Your task to perform on an android device: Open battery settings Image 0: 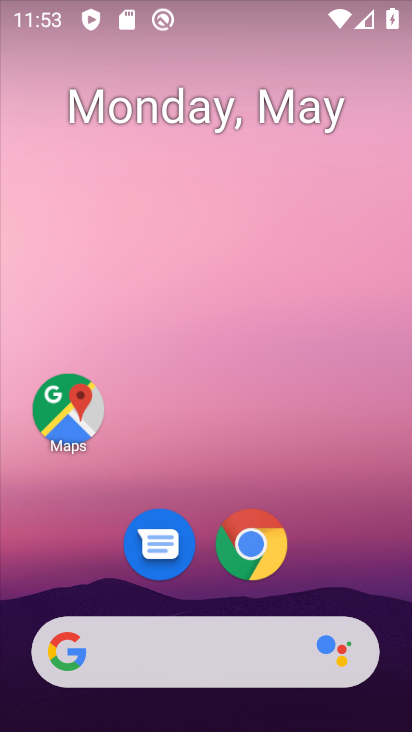
Step 0: drag from (208, 470) to (208, 173)
Your task to perform on an android device: Open battery settings Image 1: 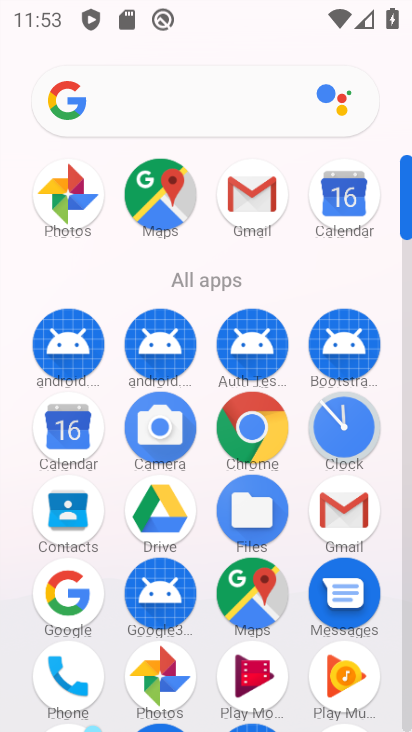
Step 1: drag from (199, 583) to (215, 247)
Your task to perform on an android device: Open battery settings Image 2: 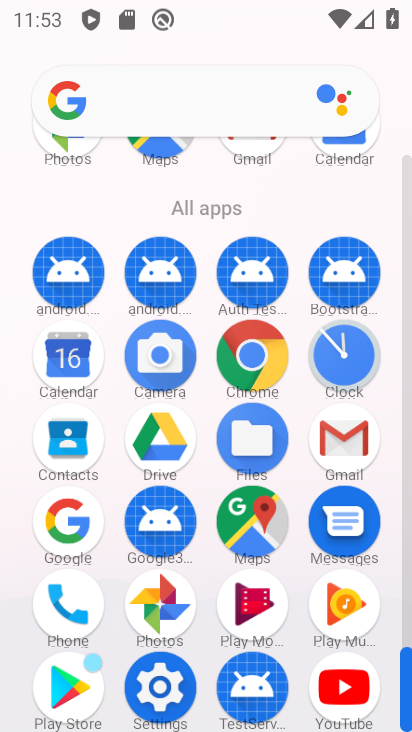
Step 2: click (153, 669)
Your task to perform on an android device: Open battery settings Image 3: 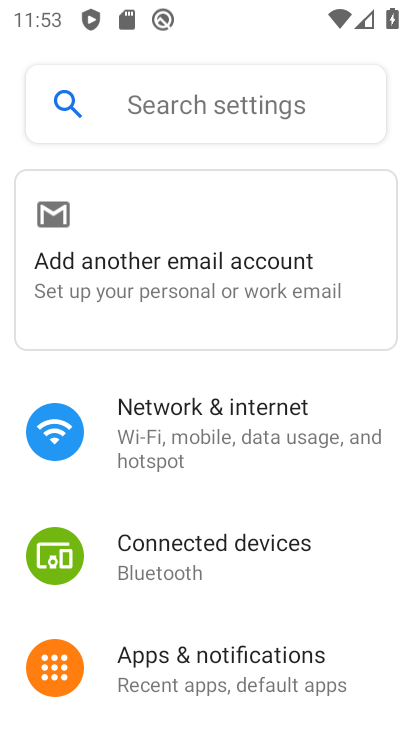
Step 3: drag from (236, 602) to (253, 383)
Your task to perform on an android device: Open battery settings Image 4: 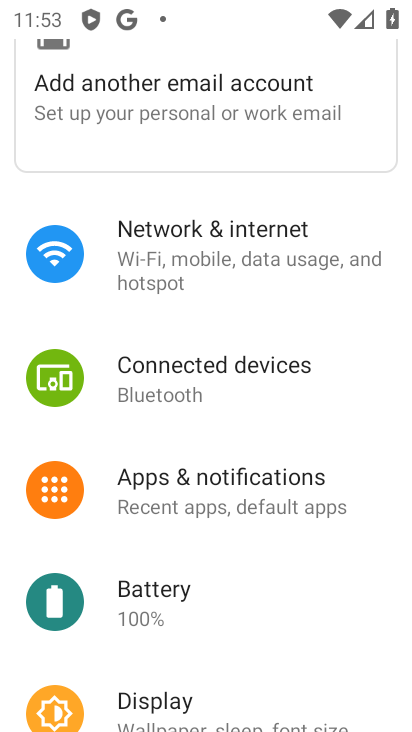
Step 4: click (204, 586)
Your task to perform on an android device: Open battery settings Image 5: 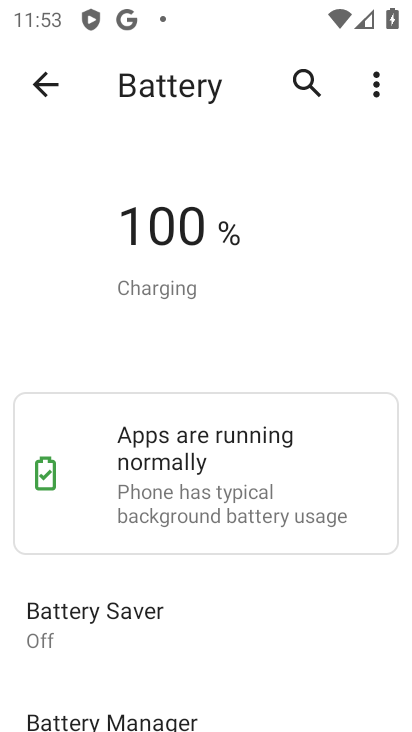
Step 5: task complete